Your task to perform on an android device: Do I have any events today? Image 0: 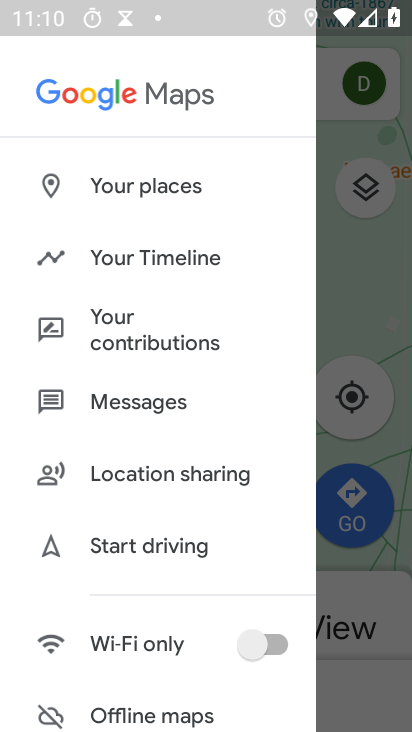
Step 0: click (365, 283)
Your task to perform on an android device: Do I have any events today? Image 1: 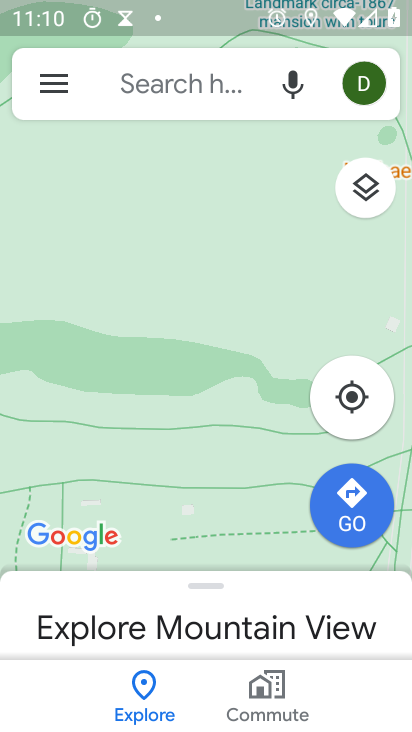
Step 1: press back button
Your task to perform on an android device: Do I have any events today? Image 2: 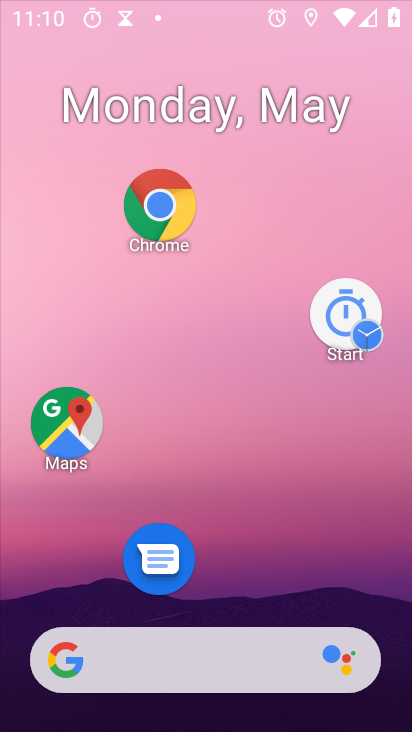
Step 2: click (237, 237)
Your task to perform on an android device: Do I have any events today? Image 3: 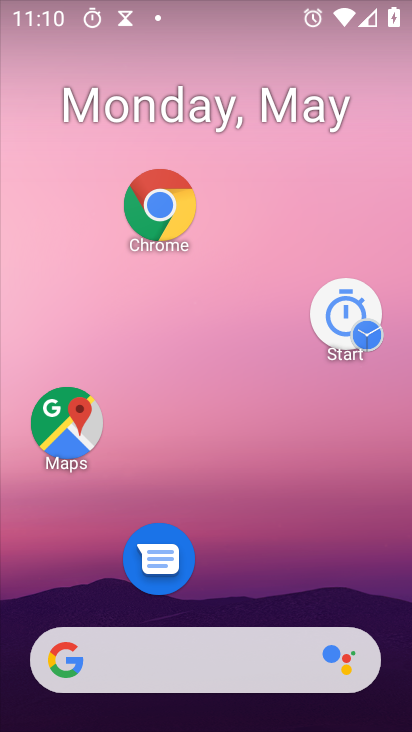
Step 3: drag from (241, 624) to (408, 491)
Your task to perform on an android device: Do I have any events today? Image 4: 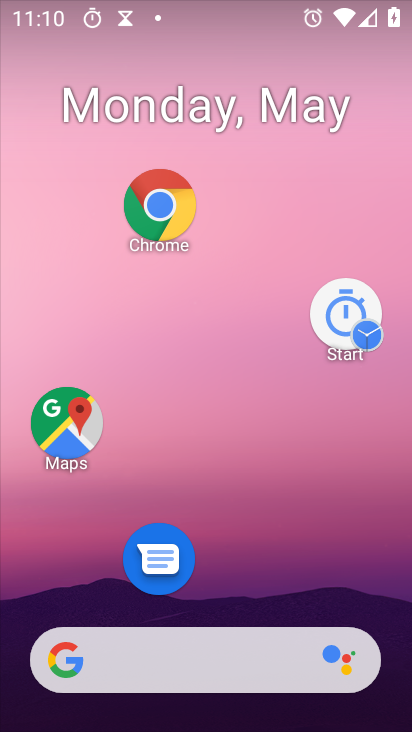
Step 4: drag from (273, 685) to (209, 115)
Your task to perform on an android device: Do I have any events today? Image 5: 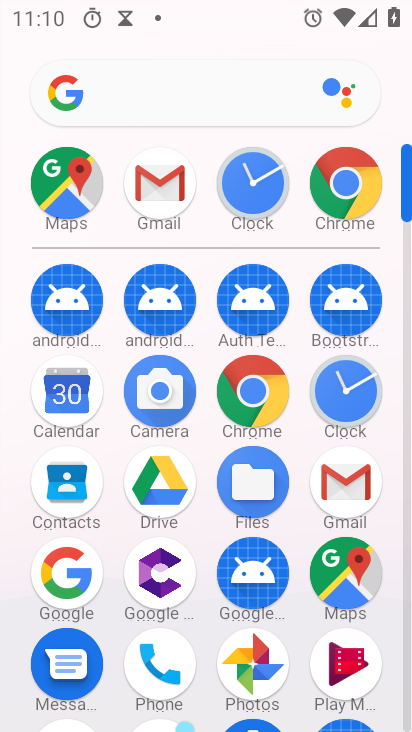
Step 5: click (66, 396)
Your task to perform on an android device: Do I have any events today? Image 6: 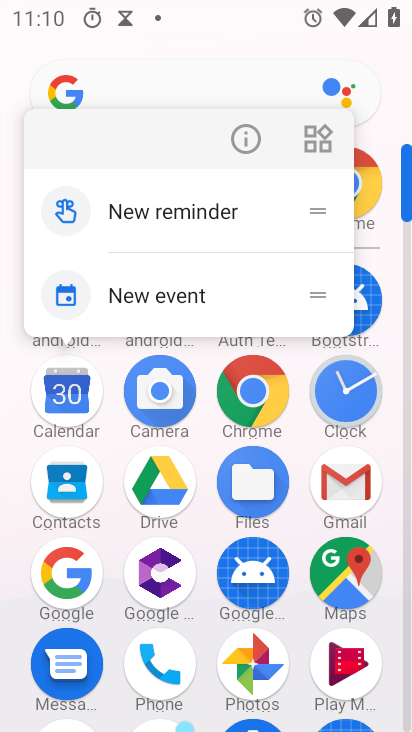
Step 6: click (67, 398)
Your task to perform on an android device: Do I have any events today? Image 7: 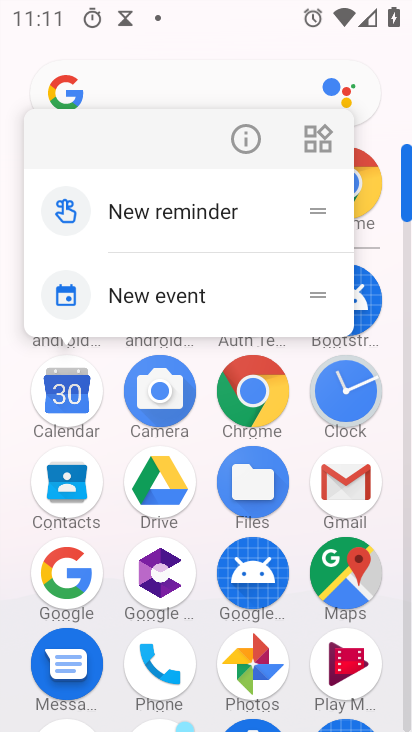
Step 7: click (64, 389)
Your task to perform on an android device: Do I have any events today? Image 8: 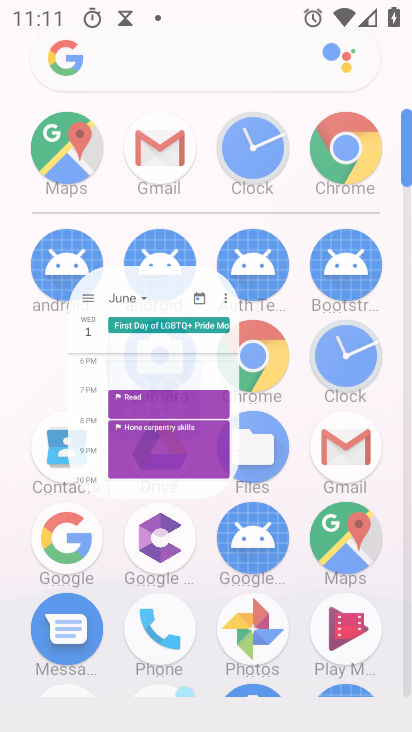
Step 8: click (70, 391)
Your task to perform on an android device: Do I have any events today? Image 9: 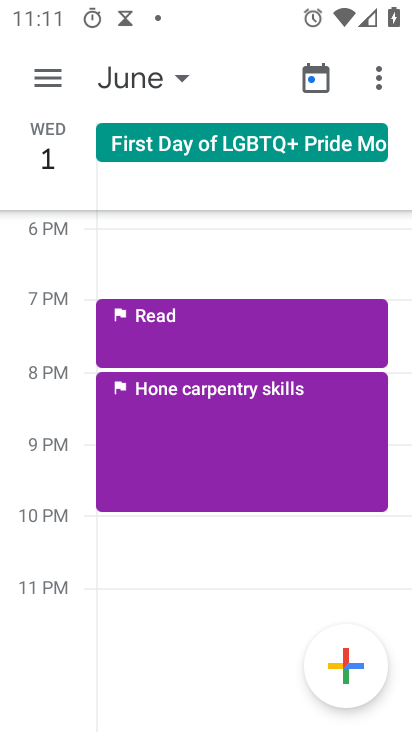
Step 9: click (176, 79)
Your task to perform on an android device: Do I have any events today? Image 10: 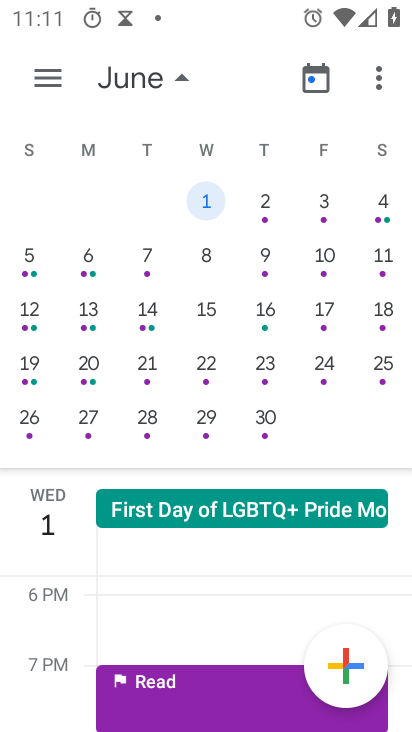
Step 10: drag from (286, 288) to (84, 352)
Your task to perform on an android device: Do I have any events today? Image 11: 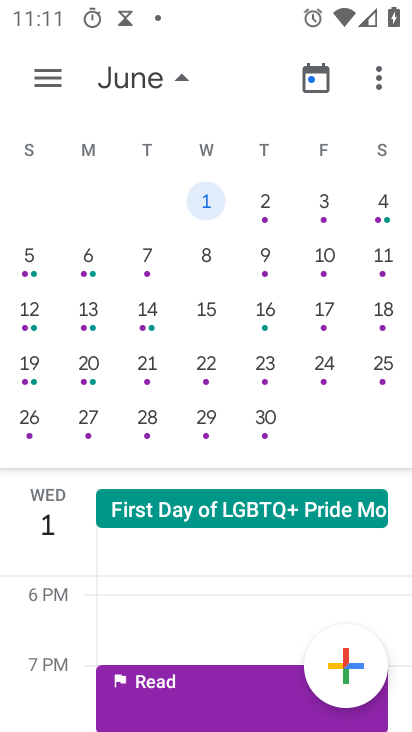
Step 11: drag from (95, 292) to (378, 361)
Your task to perform on an android device: Do I have any events today? Image 12: 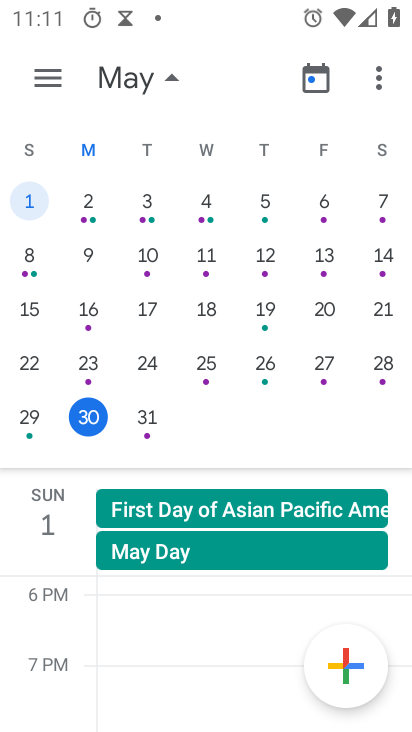
Step 12: click (148, 417)
Your task to perform on an android device: Do I have any events today? Image 13: 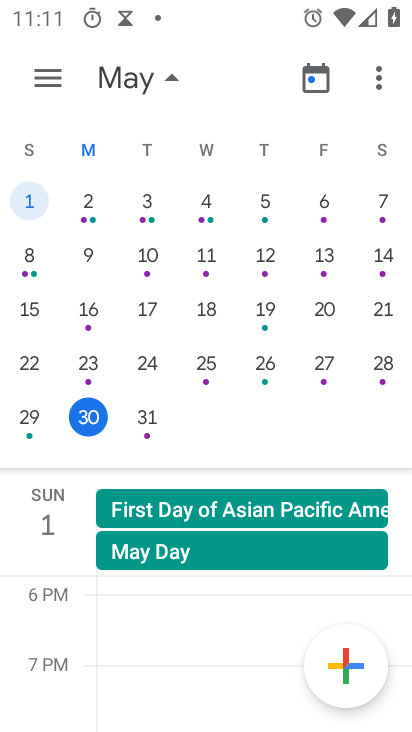
Step 13: click (152, 414)
Your task to perform on an android device: Do I have any events today? Image 14: 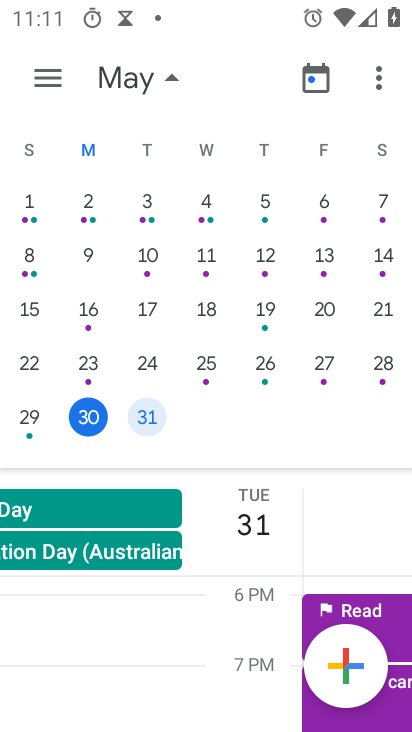
Step 14: click (147, 411)
Your task to perform on an android device: Do I have any events today? Image 15: 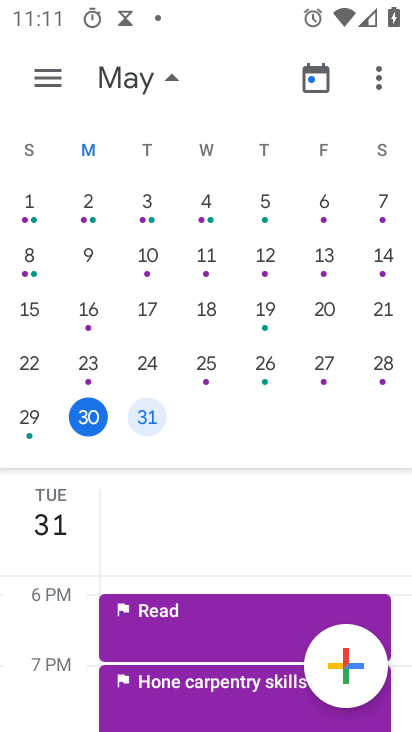
Step 15: click (143, 407)
Your task to perform on an android device: Do I have any events today? Image 16: 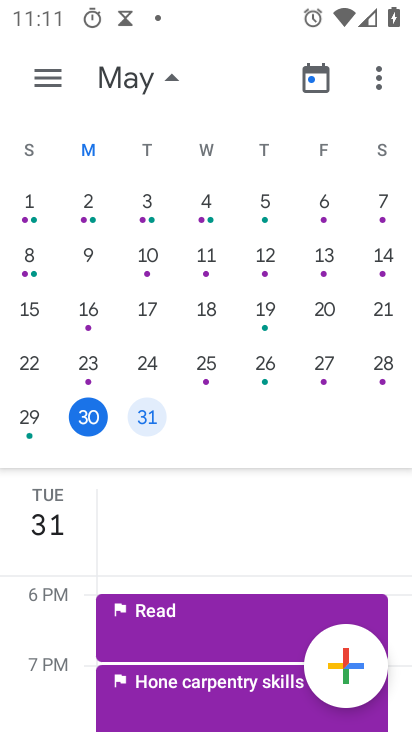
Step 16: task complete